Your task to perform on an android device: Play the last video I watched on Youtube Image 0: 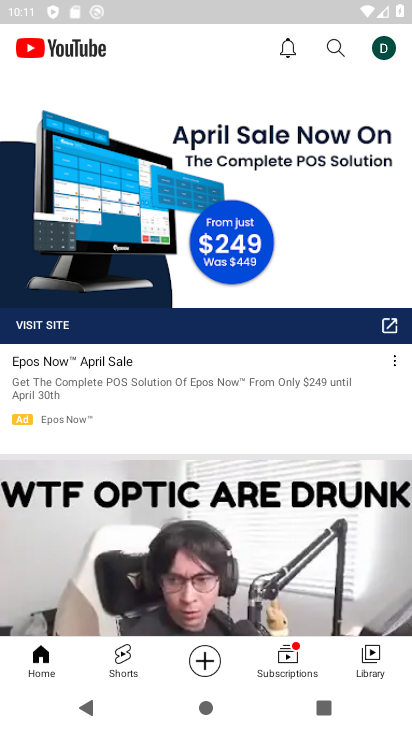
Step 0: click (386, 43)
Your task to perform on an android device: Play the last video I watched on Youtube Image 1: 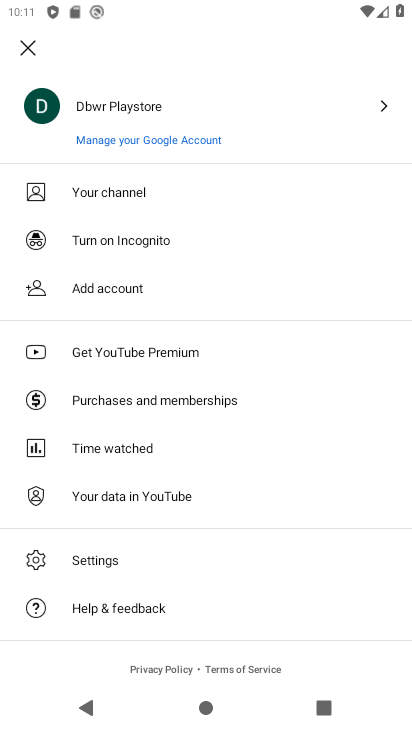
Step 1: click (85, 552)
Your task to perform on an android device: Play the last video I watched on Youtube Image 2: 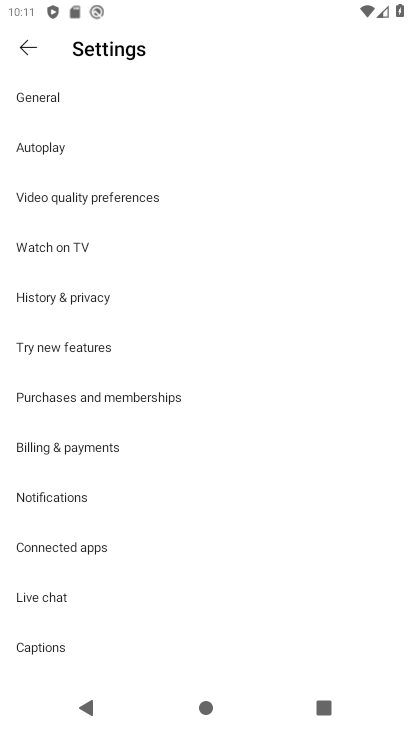
Step 2: click (27, 48)
Your task to perform on an android device: Play the last video I watched on Youtube Image 3: 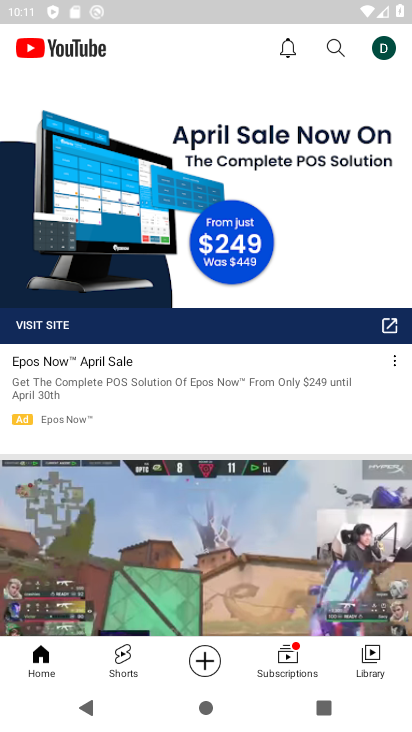
Step 3: click (365, 664)
Your task to perform on an android device: Play the last video I watched on Youtube Image 4: 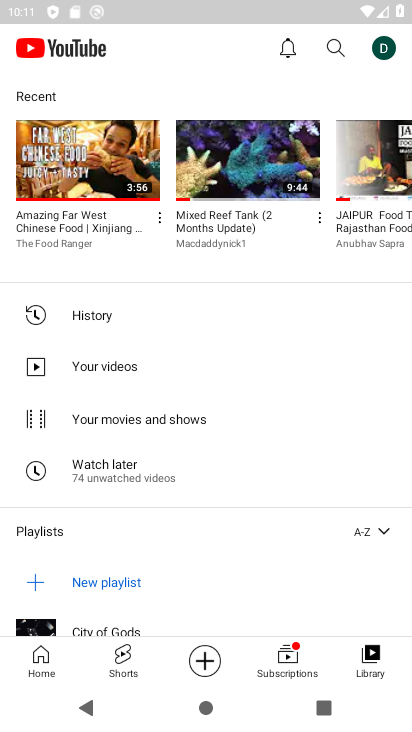
Step 4: click (85, 167)
Your task to perform on an android device: Play the last video I watched on Youtube Image 5: 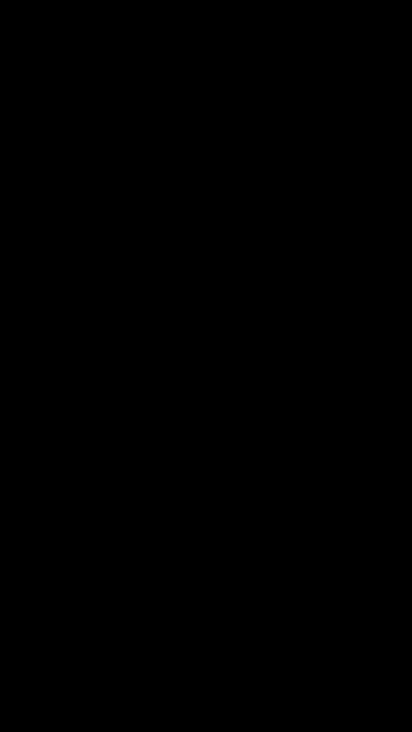
Step 5: task complete